Your task to perform on an android device: Open settings on Google Maps Image 0: 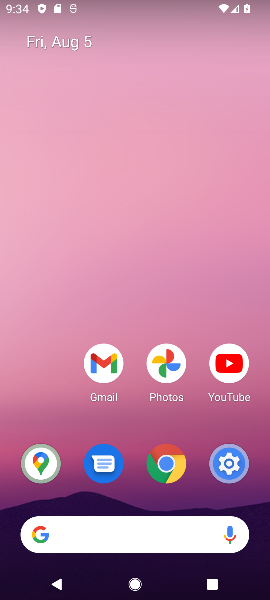
Step 0: drag from (171, 561) to (161, 252)
Your task to perform on an android device: Open settings on Google Maps Image 1: 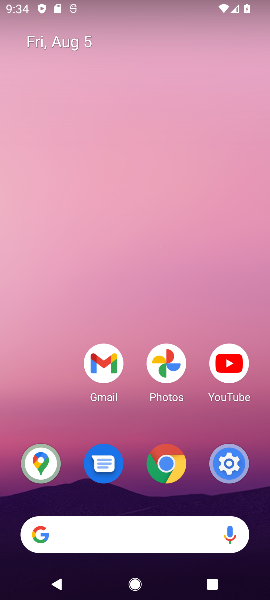
Step 1: drag from (161, 473) to (96, 154)
Your task to perform on an android device: Open settings on Google Maps Image 2: 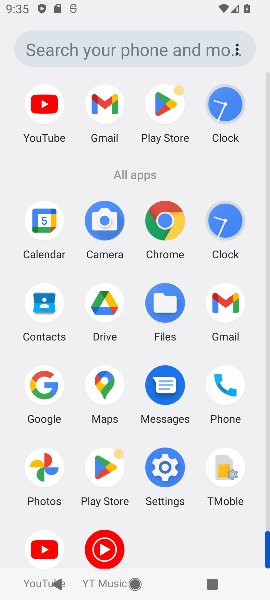
Step 2: drag from (150, 410) to (117, 50)
Your task to perform on an android device: Open settings on Google Maps Image 3: 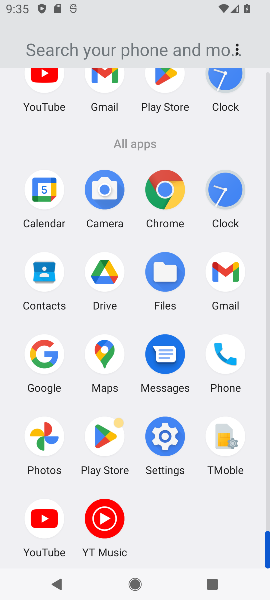
Step 3: click (162, 441)
Your task to perform on an android device: Open settings on Google Maps Image 4: 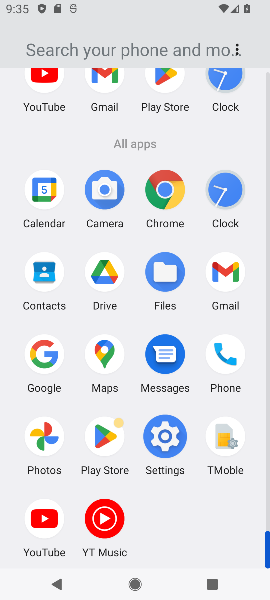
Step 4: click (166, 442)
Your task to perform on an android device: Open settings on Google Maps Image 5: 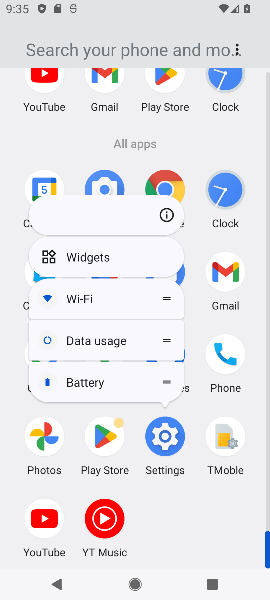
Step 5: click (187, 513)
Your task to perform on an android device: Open settings on Google Maps Image 6: 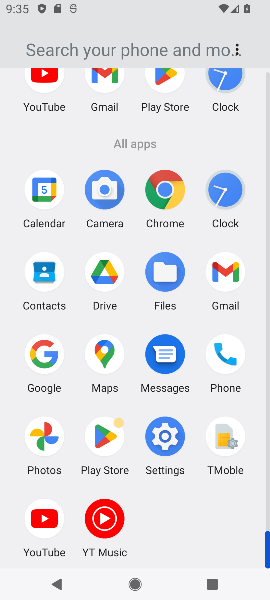
Step 6: click (108, 345)
Your task to perform on an android device: Open settings on Google Maps Image 7: 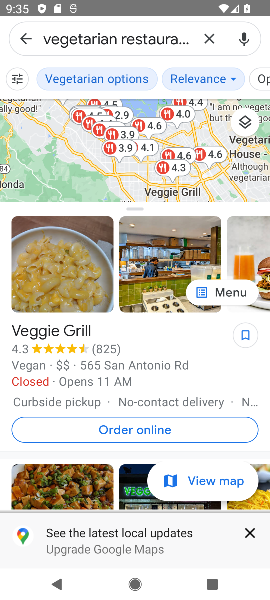
Step 7: click (21, 41)
Your task to perform on an android device: Open settings on Google Maps Image 8: 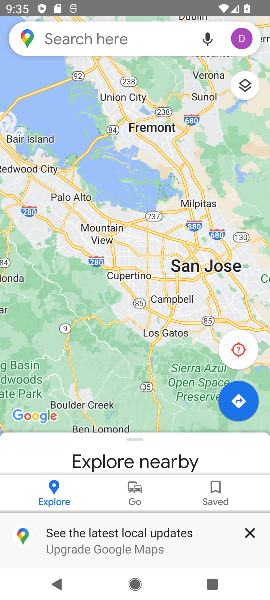
Step 8: click (246, 44)
Your task to perform on an android device: Open settings on Google Maps Image 9: 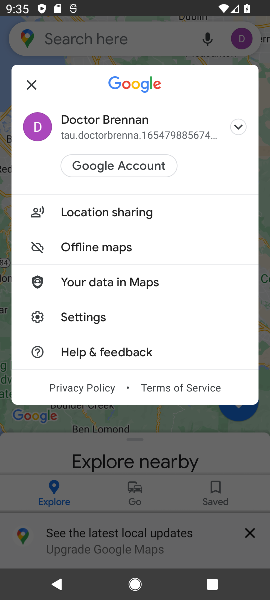
Step 9: click (73, 317)
Your task to perform on an android device: Open settings on Google Maps Image 10: 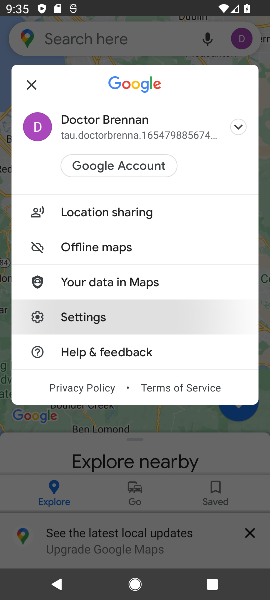
Step 10: click (74, 316)
Your task to perform on an android device: Open settings on Google Maps Image 11: 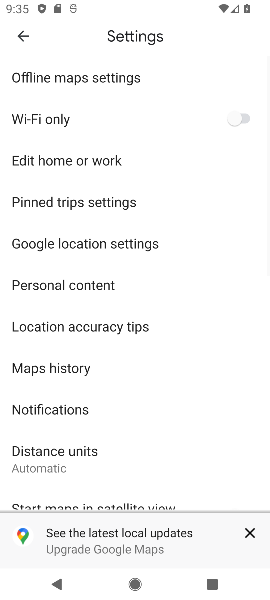
Step 11: task complete